Your task to perform on an android device: Check the news Image 0: 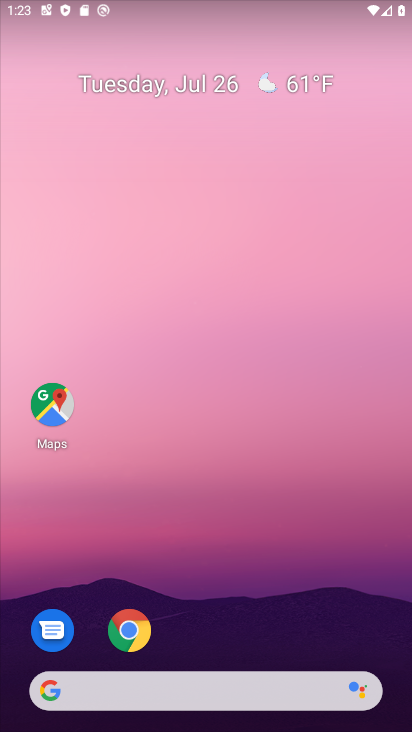
Step 0: click (208, 685)
Your task to perform on an android device: Check the news Image 1: 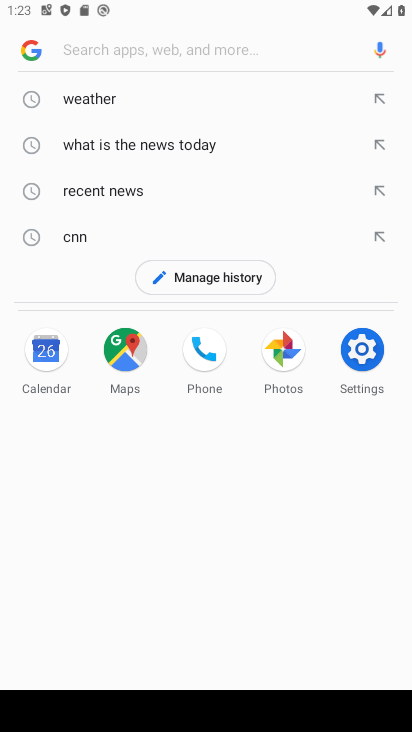
Step 1: type "news"
Your task to perform on an android device: Check the news Image 2: 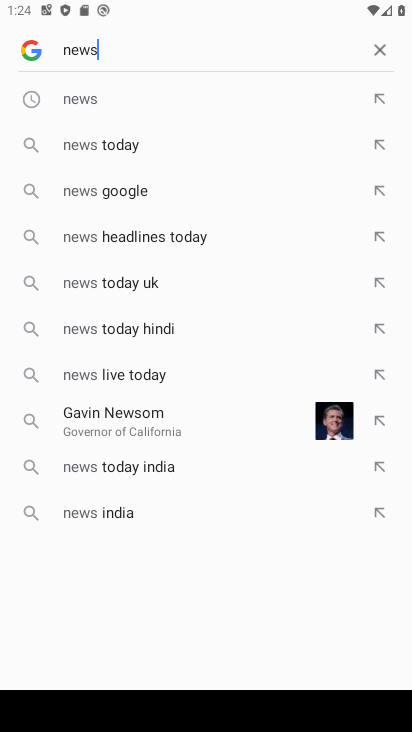
Step 2: click (122, 100)
Your task to perform on an android device: Check the news Image 3: 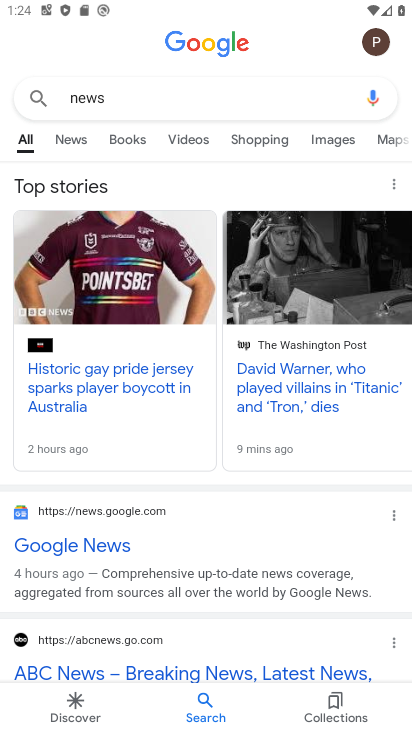
Step 3: click (69, 150)
Your task to perform on an android device: Check the news Image 4: 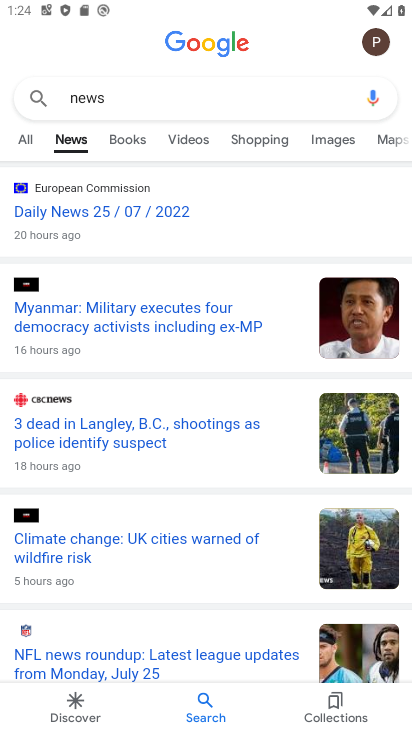
Step 4: task complete